Your task to perform on an android device: What's the weather going to be this weekend? Image 0: 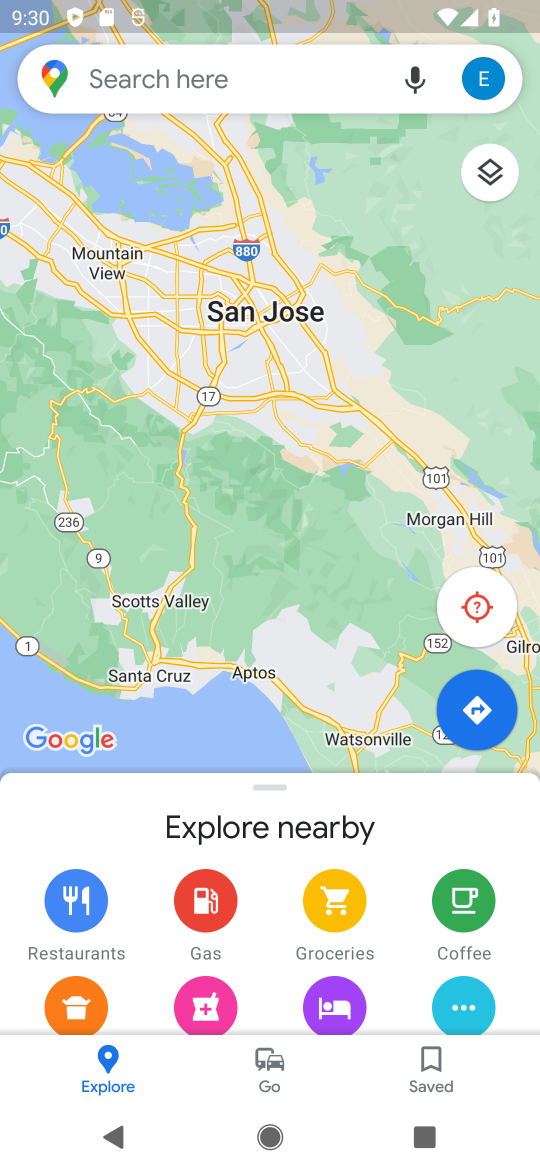
Step 0: press home button
Your task to perform on an android device: What's the weather going to be this weekend? Image 1: 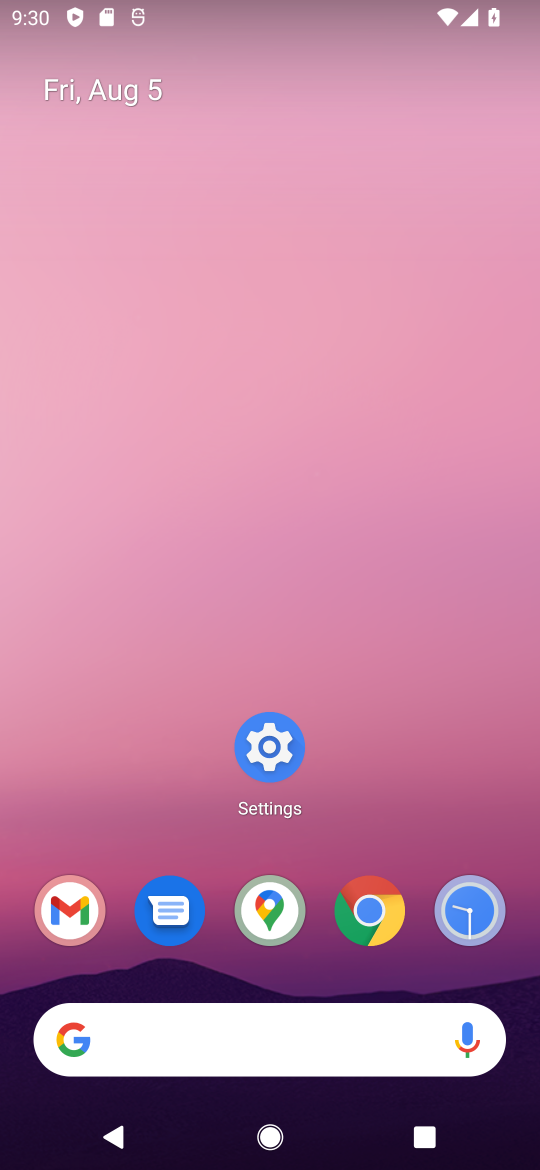
Step 1: click (214, 1030)
Your task to perform on an android device: What's the weather going to be this weekend? Image 2: 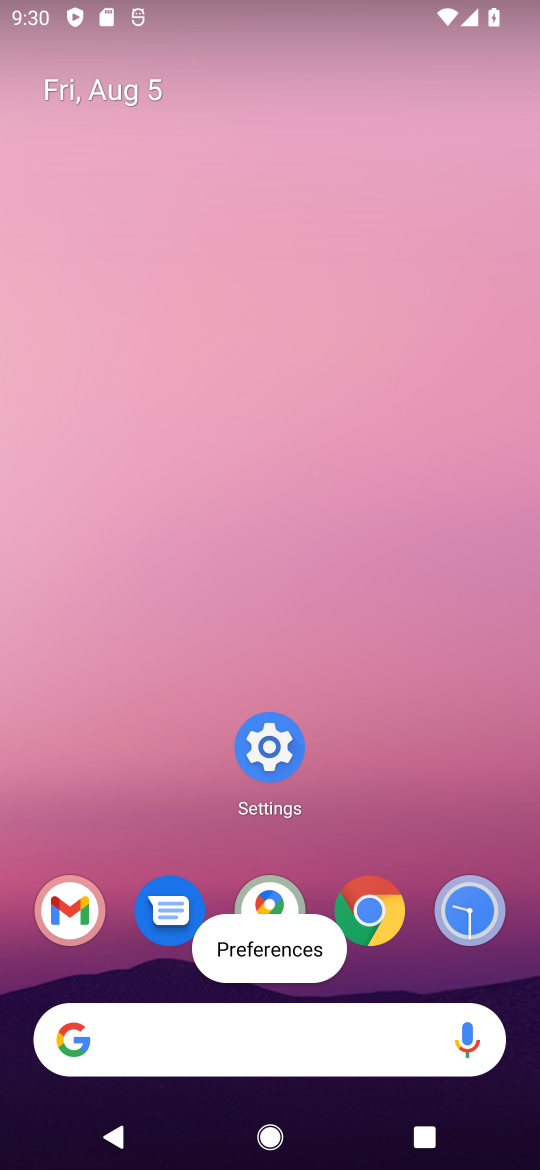
Step 2: click (196, 1039)
Your task to perform on an android device: What's the weather going to be this weekend? Image 3: 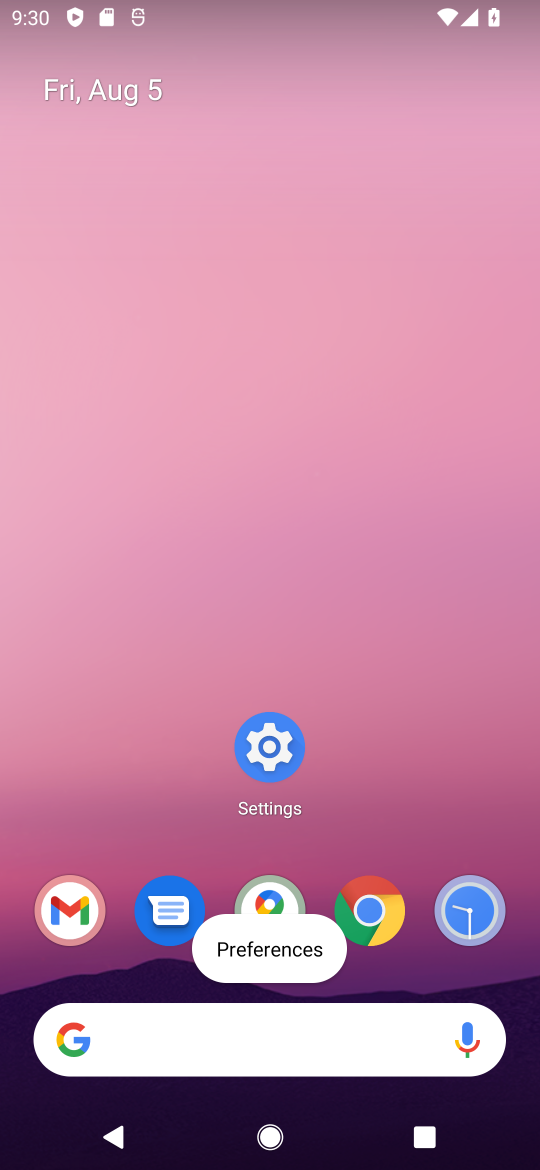
Step 3: click (196, 1039)
Your task to perform on an android device: What's the weather going to be this weekend? Image 4: 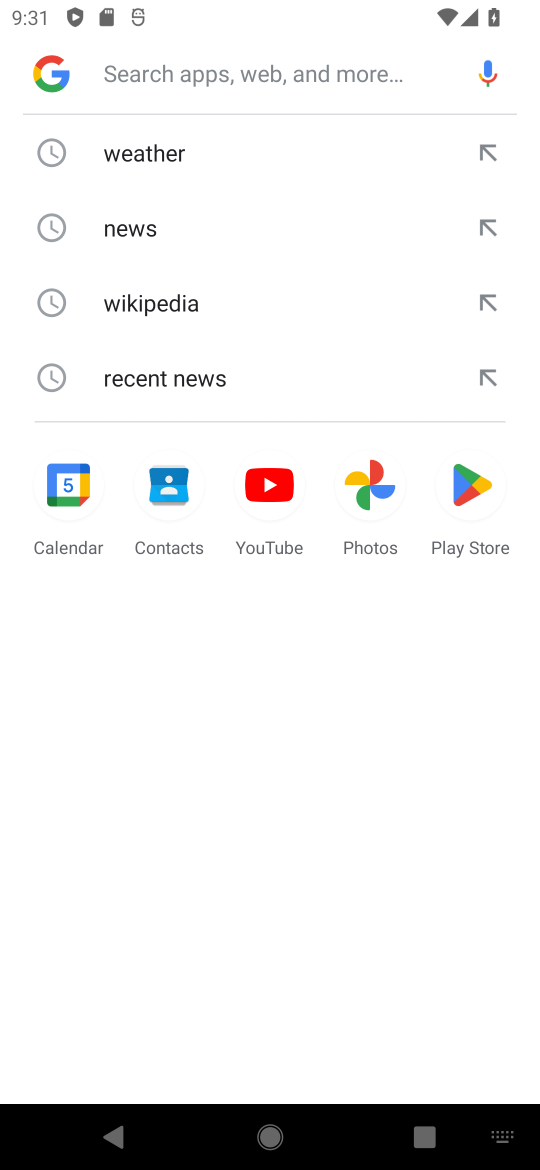
Step 4: click (185, 149)
Your task to perform on an android device: What's the weather going to be this weekend? Image 5: 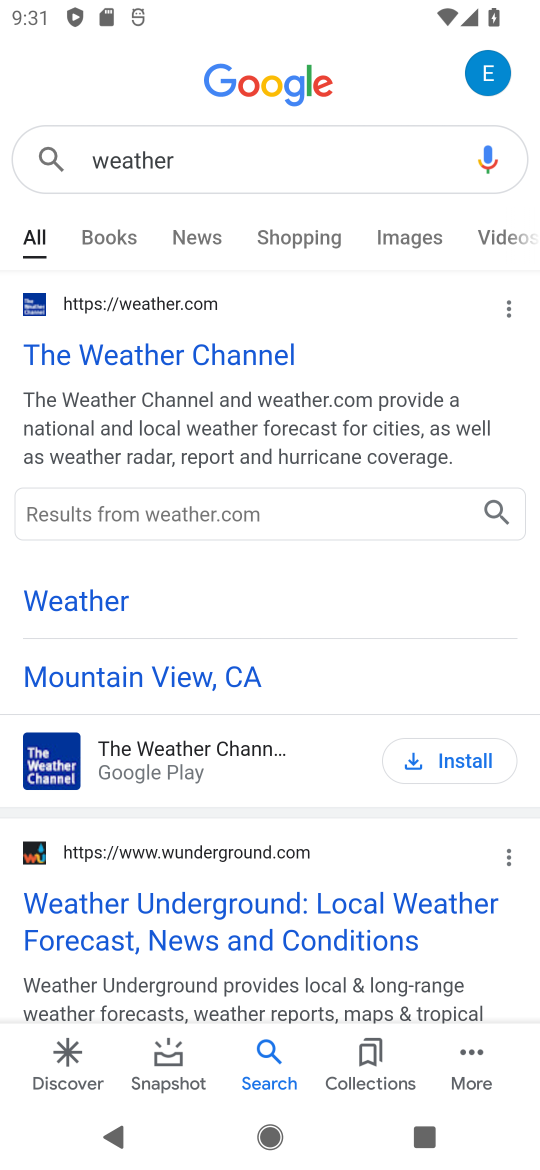
Step 5: click (187, 679)
Your task to perform on an android device: What's the weather going to be this weekend? Image 6: 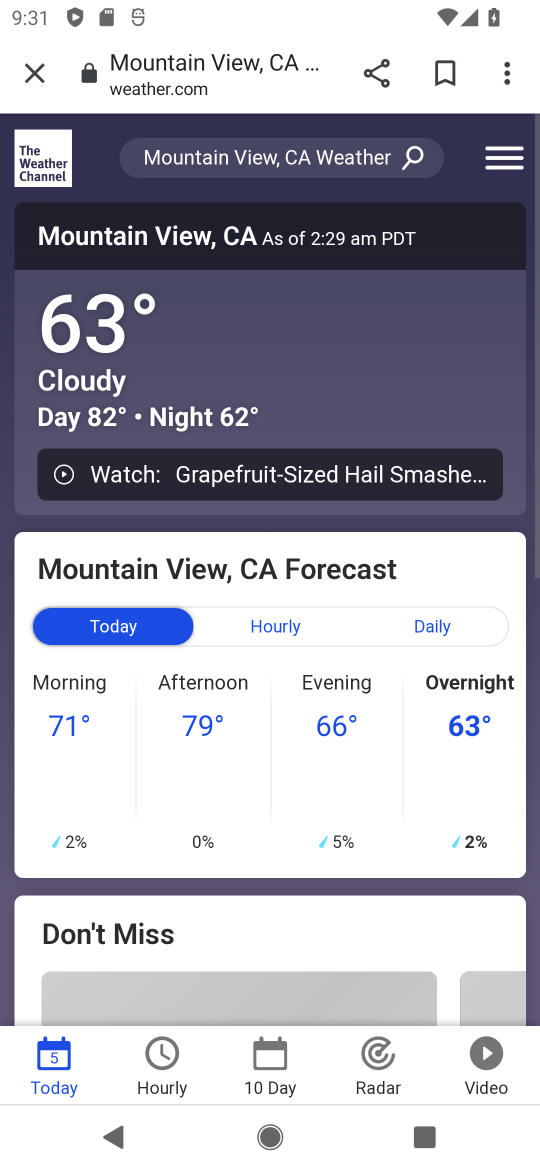
Step 6: click (270, 1084)
Your task to perform on an android device: What's the weather going to be this weekend? Image 7: 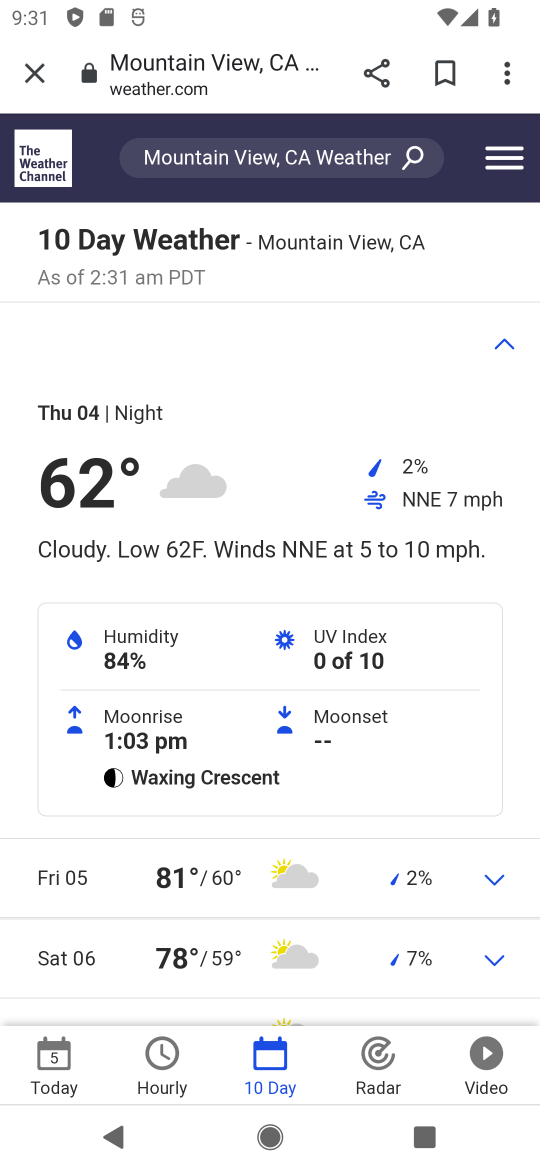
Step 7: click (102, 952)
Your task to perform on an android device: What's the weather going to be this weekend? Image 8: 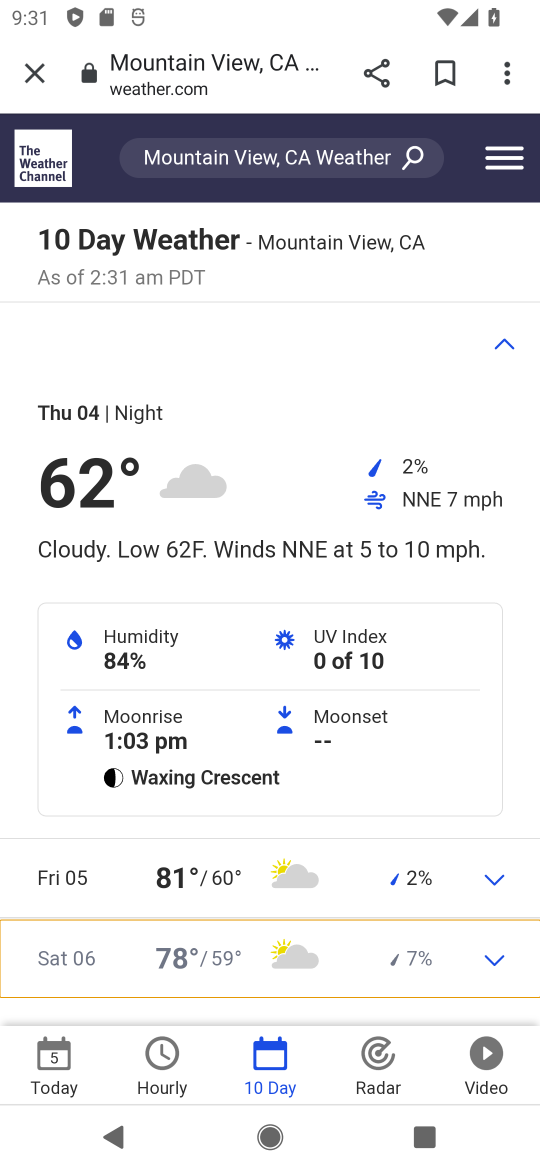
Step 8: task complete